Your task to perform on an android device: Do I have any events today? Image 0: 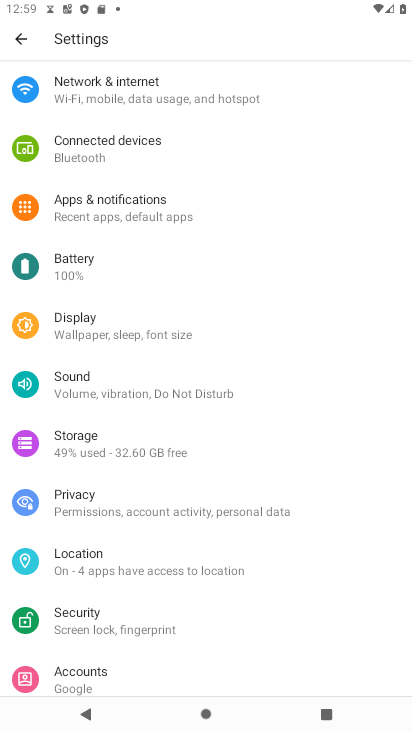
Step 0: press back button
Your task to perform on an android device: Do I have any events today? Image 1: 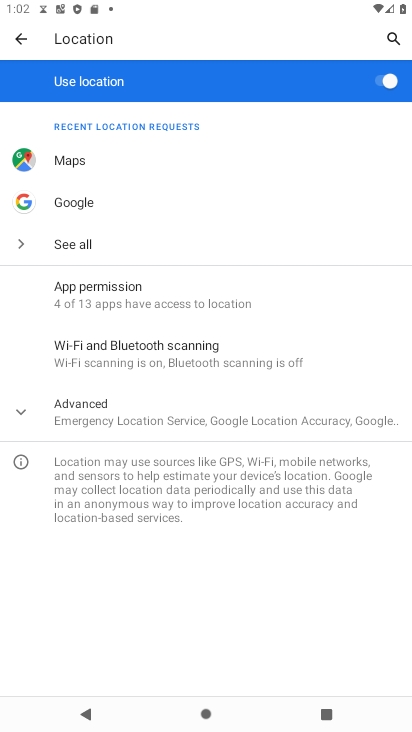
Step 1: press back button
Your task to perform on an android device: Do I have any events today? Image 2: 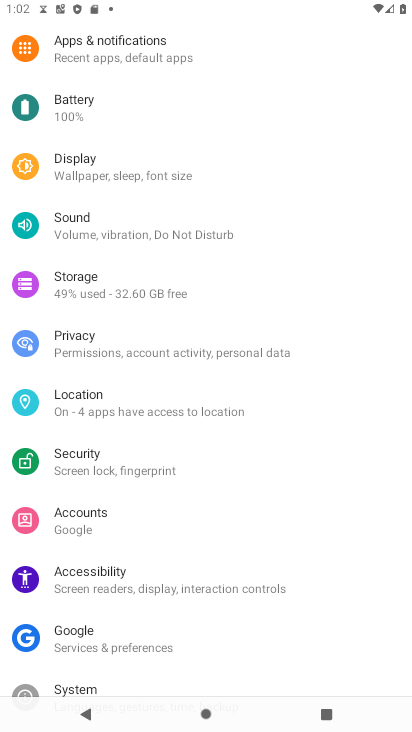
Step 2: press back button
Your task to perform on an android device: Do I have any events today? Image 3: 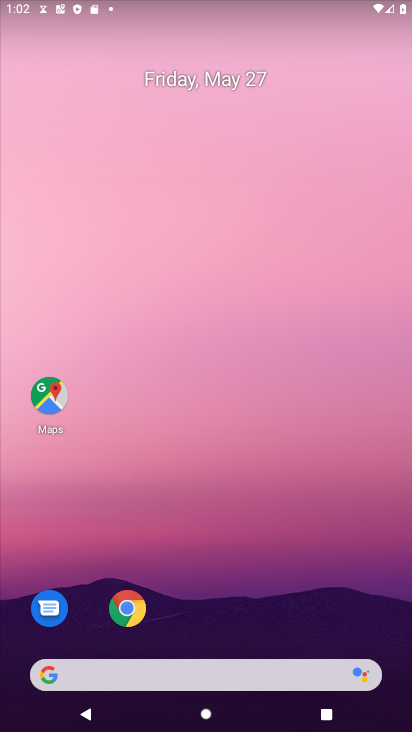
Step 3: drag from (270, 600) to (299, 100)
Your task to perform on an android device: Do I have any events today? Image 4: 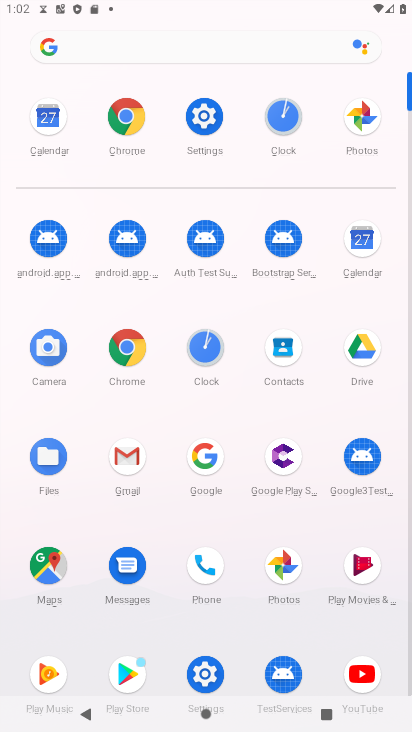
Step 4: click (354, 248)
Your task to perform on an android device: Do I have any events today? Image 5: 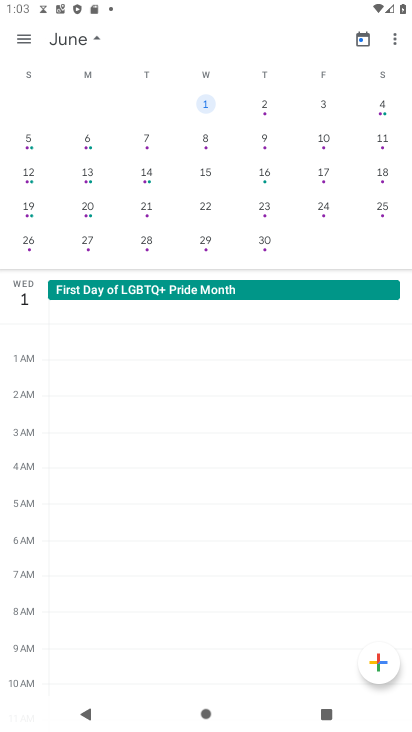
Step 5: drag from (68, 177) to (406, 180)
Your task to perform on an android device: Do I have any events today? Image 6: 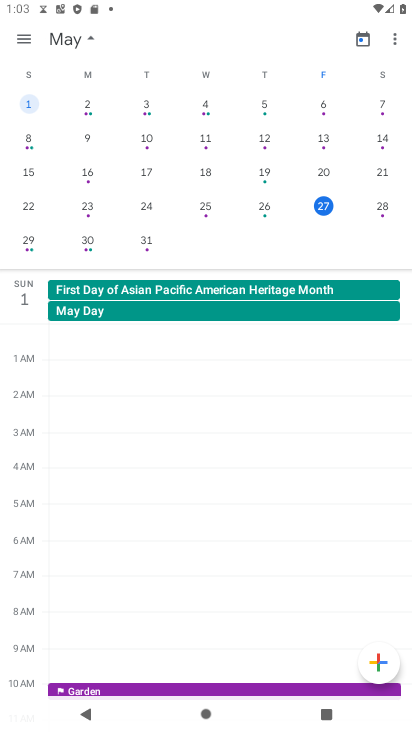
Step 6: click (322, 204)
Your task to perform on an android device: Do I have any events today? Image 7: 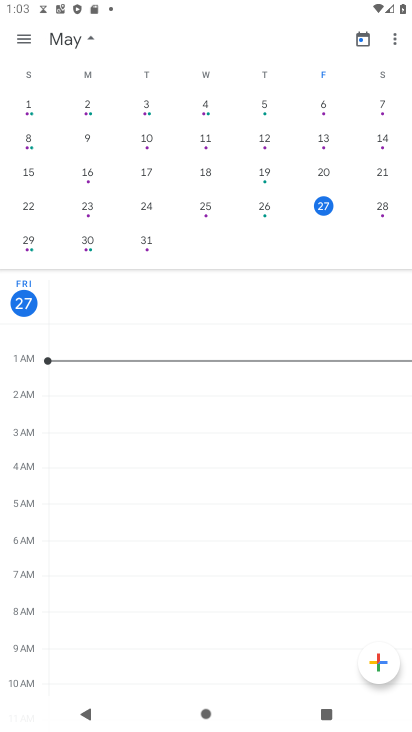
Step 7: click (26, 30)
Your task to perform on an android device: Do I have any events today? Image 8: 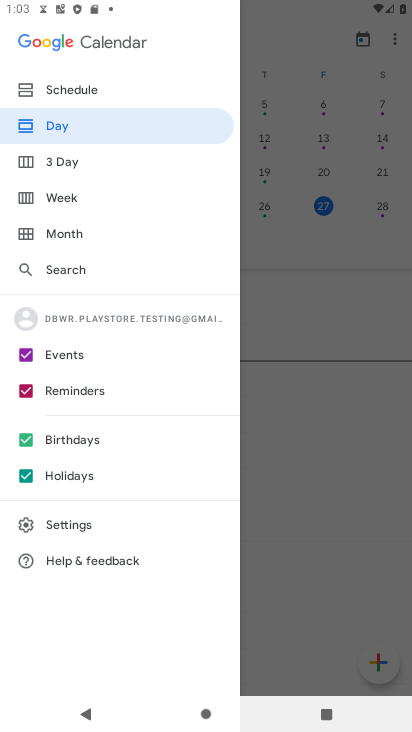
Step 8: click (86, 96)
Your task to perform on an android device: Do I have any events today? Image 9: 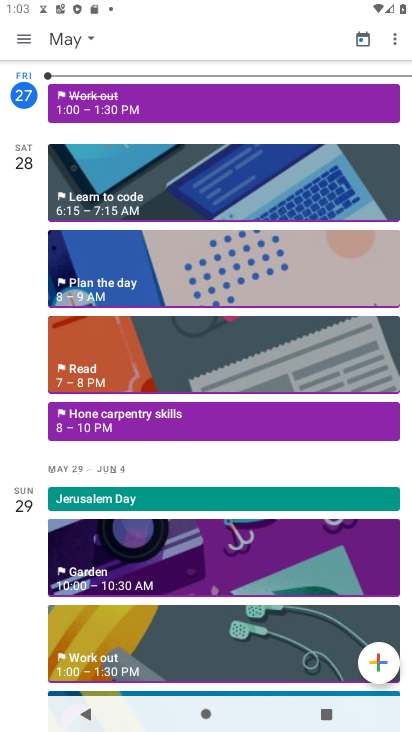
Step 9: task complete